Your task to perform on an android device: set the stopwatch Image 0: 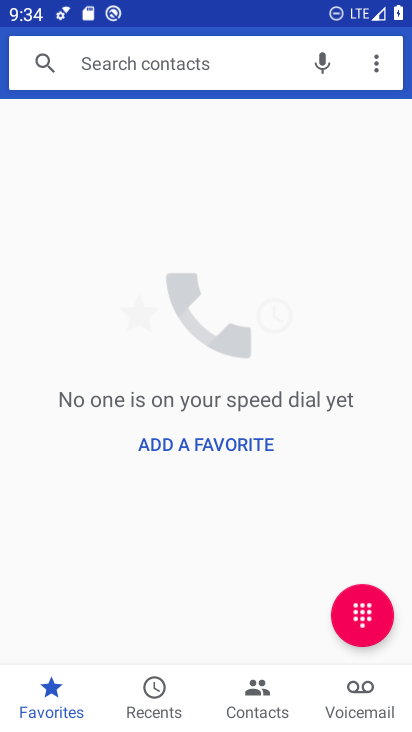
Step 0: press home button
Your task to perform on an android device: set the stopwatch Image 1: 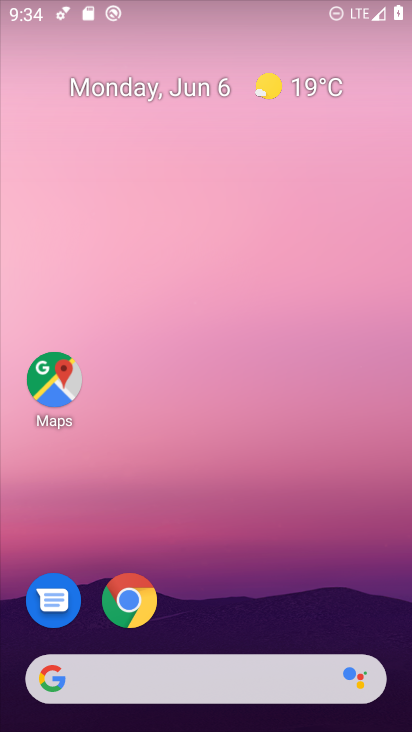
Step 1: drag from (290, 572) to (223, 16)
Your task to perform on an android device: set the stopwatch Image 2: 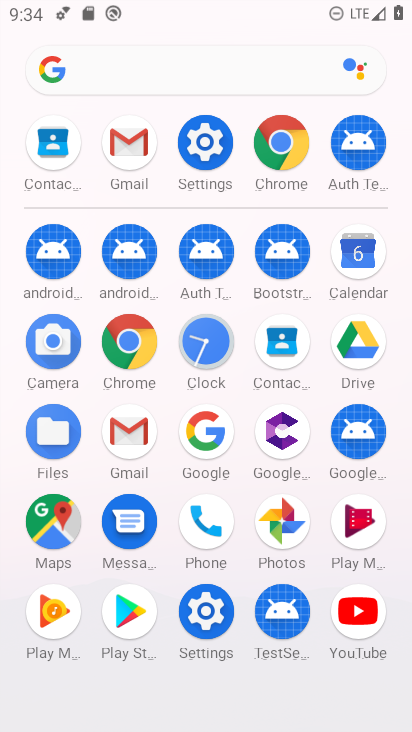
Step 2: click (206, 339)
Your task to perform on an android device: set the stopwatch Image 3: 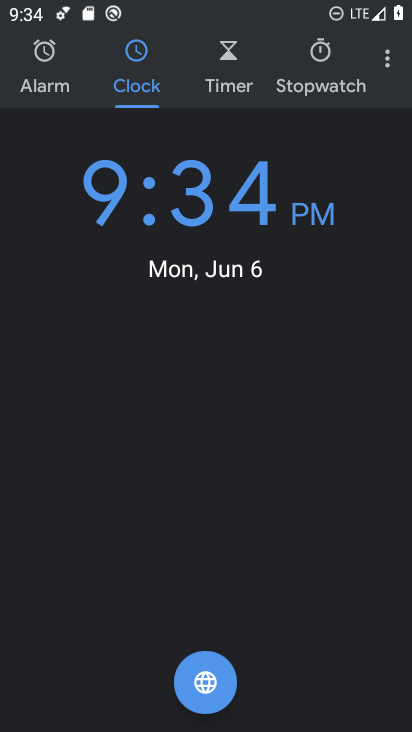
Step 3: click (321, 58)
Your task to perform on an android device: set the stopwatch Image 4: 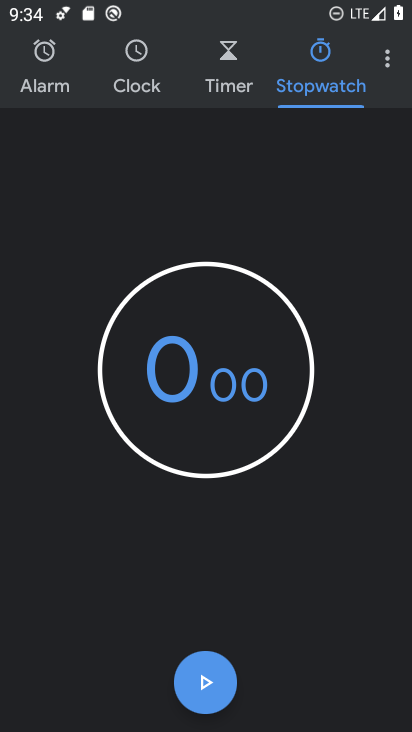
Step 4: click (201, 680)
Your task to perform on an android device: set the stopwatch Image 5: 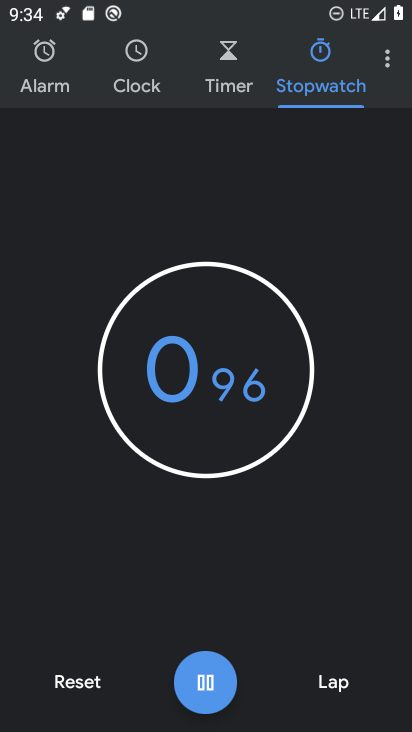
Step 5: task complete